Your task to perform on an android device: Open my contact list Image 0: 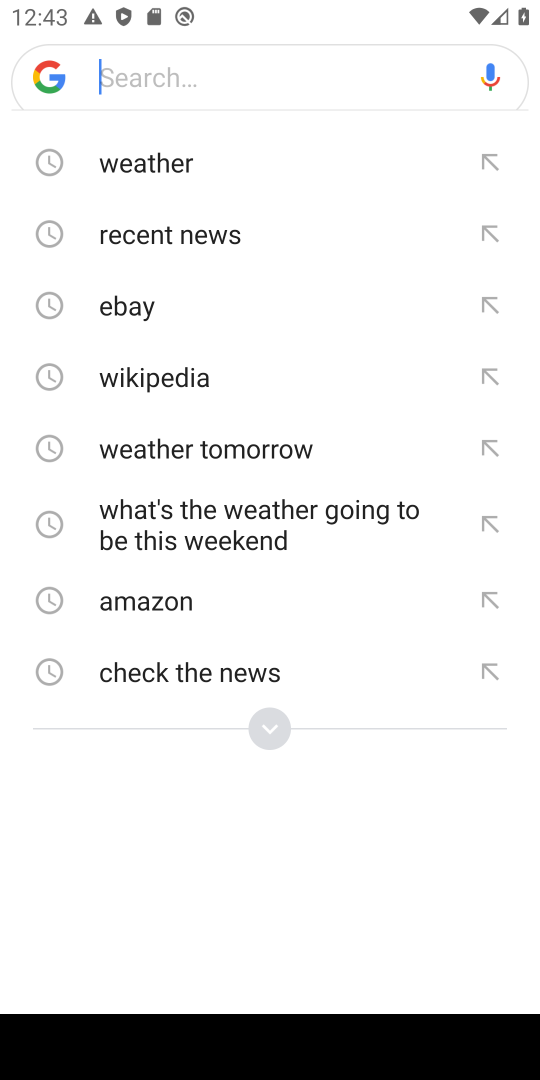
Step 0: press back button
Your task to perform on an android device: Open my contact list Image 1: 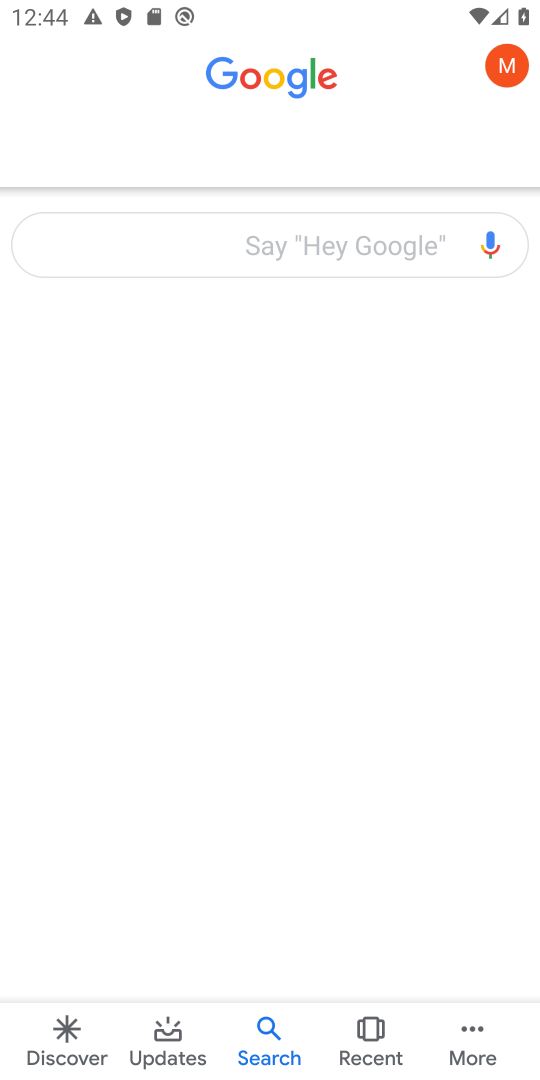
Step 1: press back button
Your task to perform on an android device: Open my contact list Image 2: 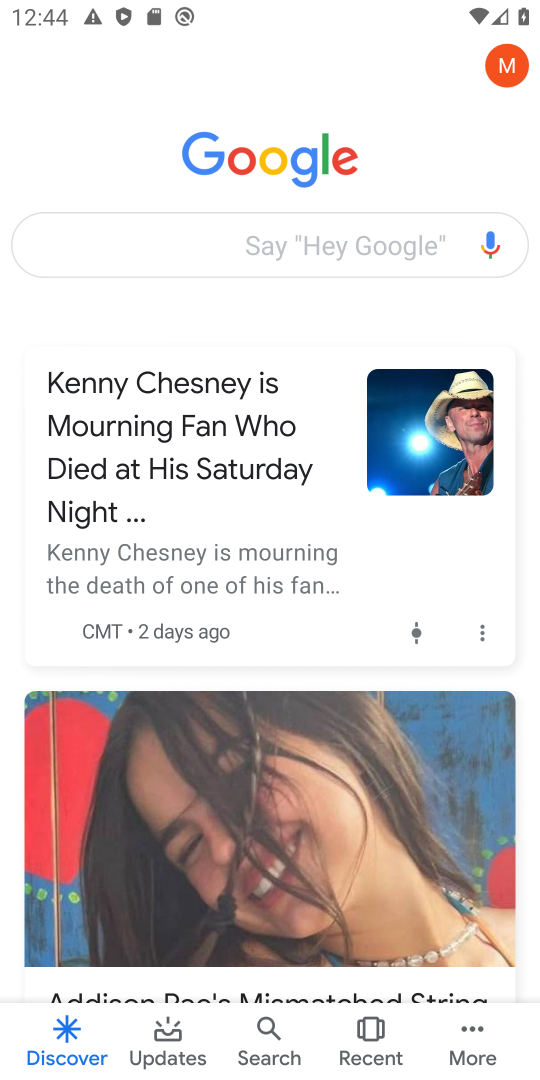
Step 2: press back button
Your task to perform on an android device: Open my contact list Image 3: 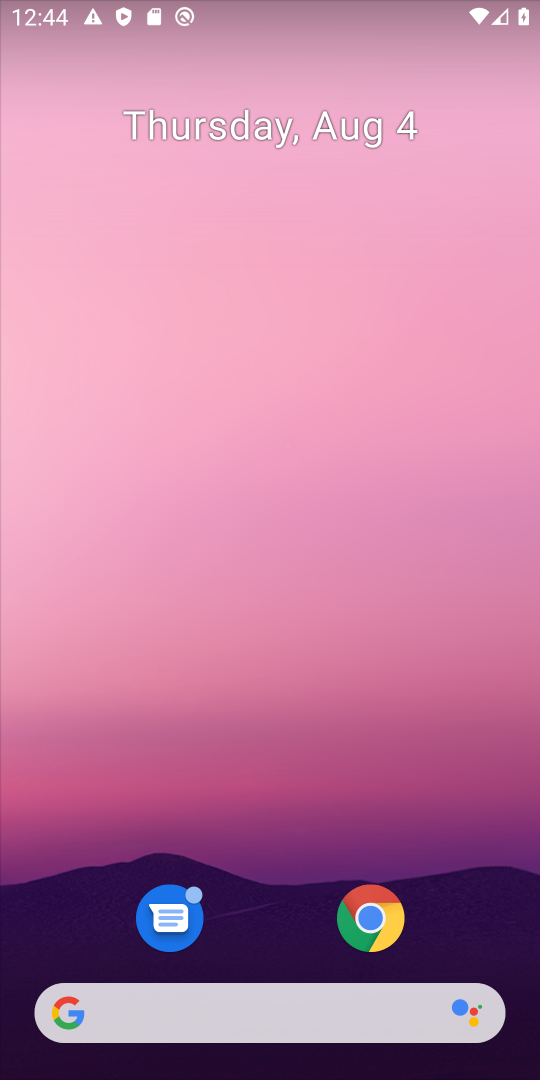
Step 3: drag from (264, 890) to (290, 217)
Your task to perform on an android device: Open my contact list Image 4: 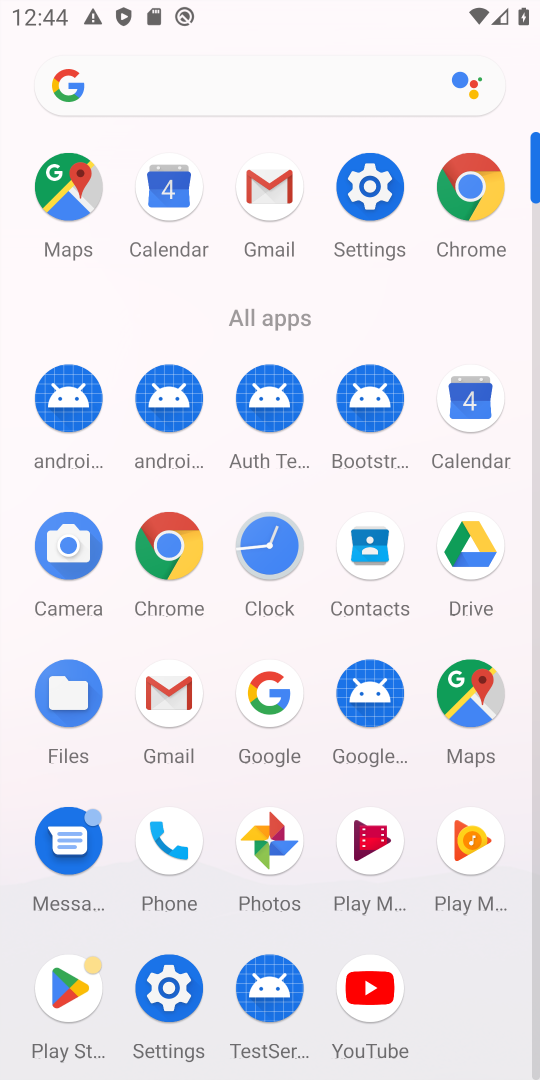
Step 4: click (392, 552)
Your task to perform on an android device: Open my contact list Image 5: 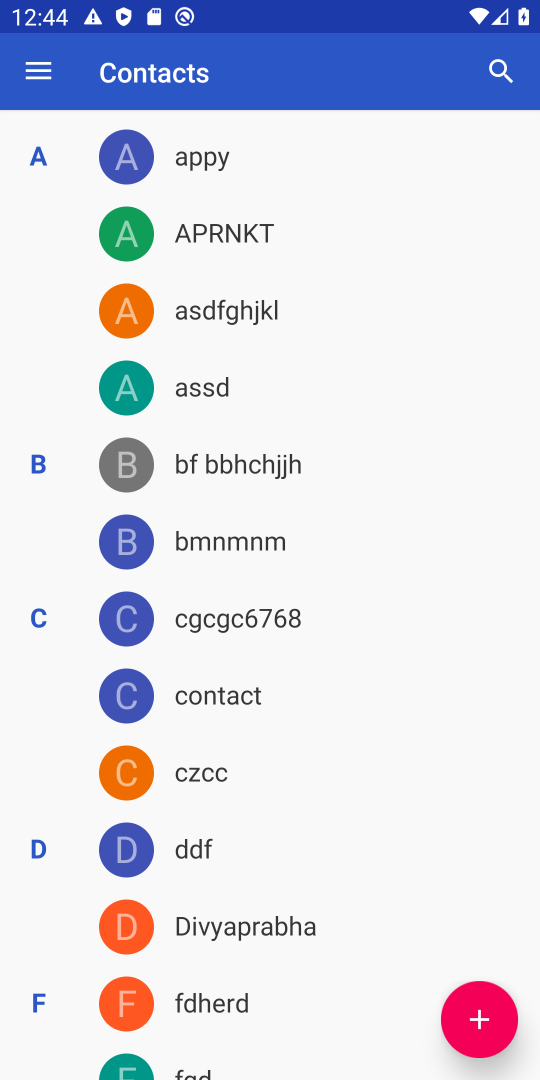
Step 5: task complete